Your task to perform on an android device: change alarm snooze length Image 0: 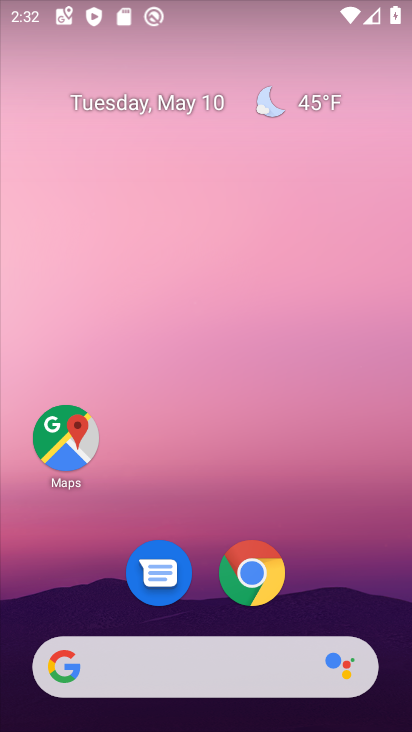
Step 0: drag from (216, 619) to (181, 117)
Your task to perform on an android device: change alarm snooze length Image 1: 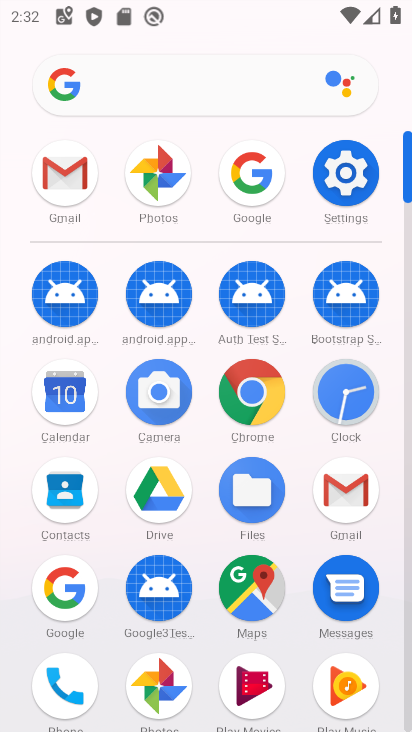
Step 1: click (349, 415)
Your task to perform on an android device: change alarm snooze length Image 2: 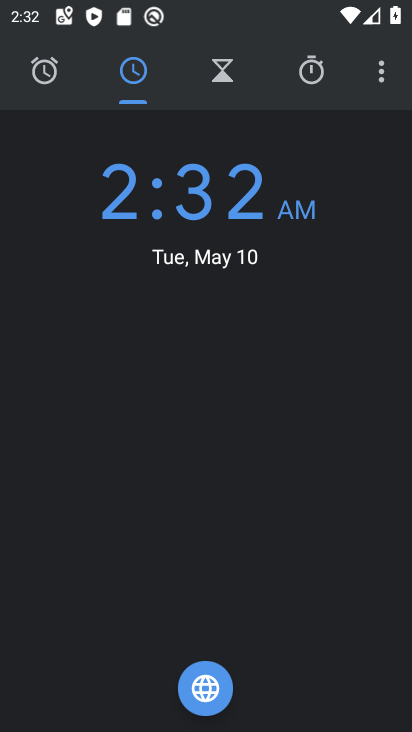
Step 2: click (378, 82)
Your task to perform on an android device: change alarm snooze length Image 3: 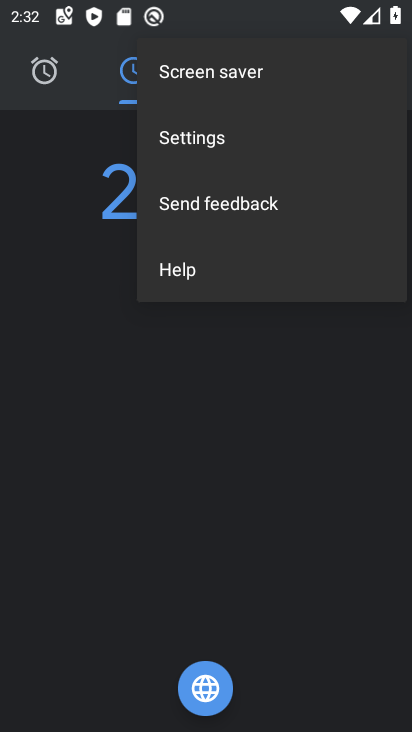
Step 3: click (269, 134)
Your task to perform on an android device: change alarm snooze length Image 4: 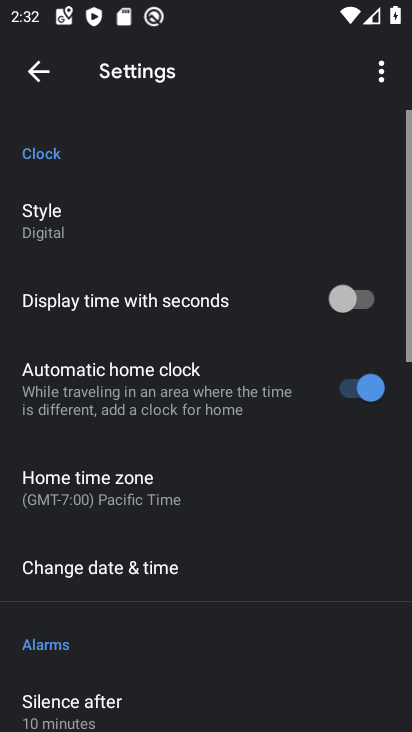
Step 4: drag from (222, 647) to (209, 212)
Your task to perform on an android device: change alarm snooze length Image 5: 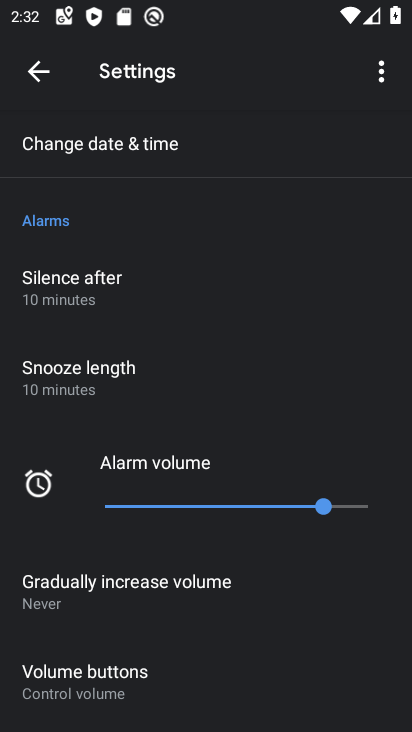
Step 5: drag from (211, 549) to (187, 226)
Your task to perform on an android device: change alarm snooze length Image 6: 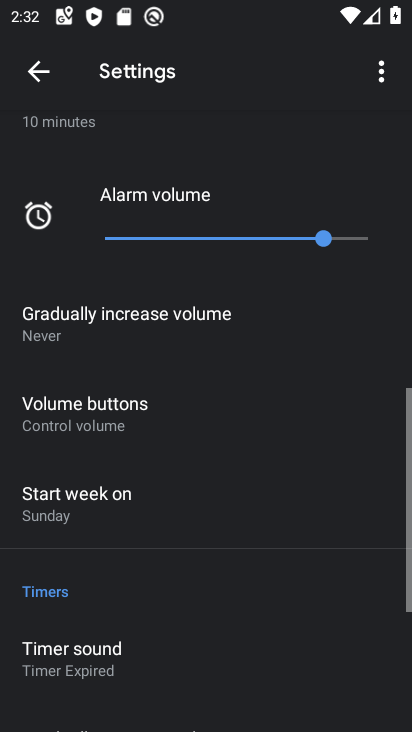
Step 6: drag from (187, 632) to (212, 324)
Your task to perform on an android device: change alarm snooze length Image 7: 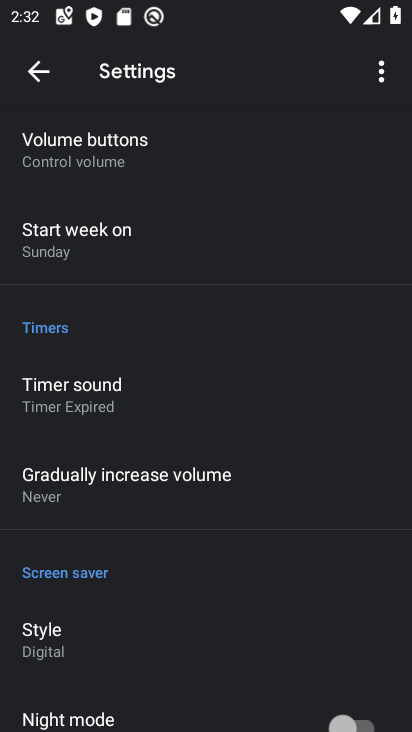
Step 7: drag from (187, 631) to (229, 288)
Your task to perform on an android device: change alarm snooze length Image 8: 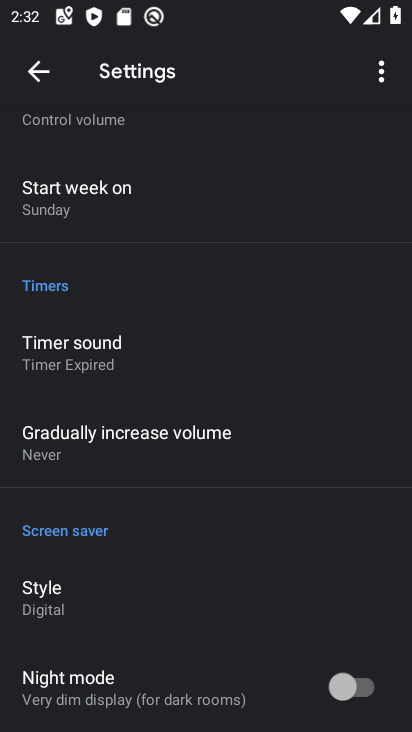
Step 8: drag from (211, 689) to (244, 363)
Your task to perform on an android device: change alarm snooze length Image 9: 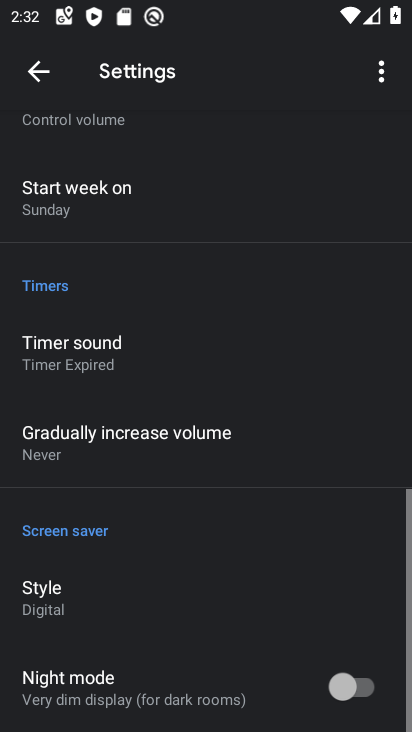
Step 9: drag from (216, 545) to (245, 319)
Your task to perform on an android device: change alarm snooze length Image 10: 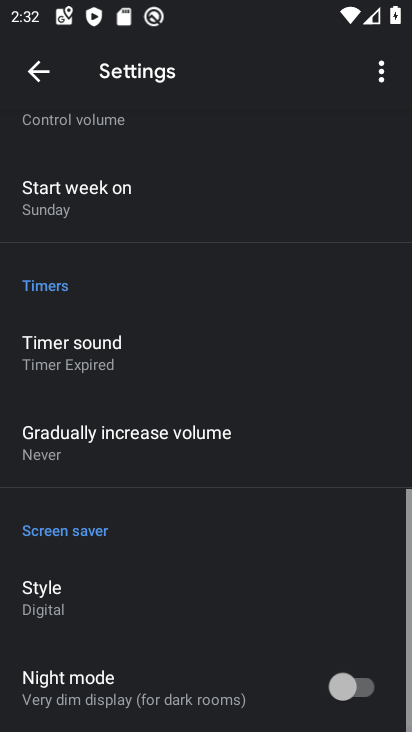
Step 10: drag from (245, 325) to (262, 502)
Your task to perform on an android device: change alarm snooze length Image 11: 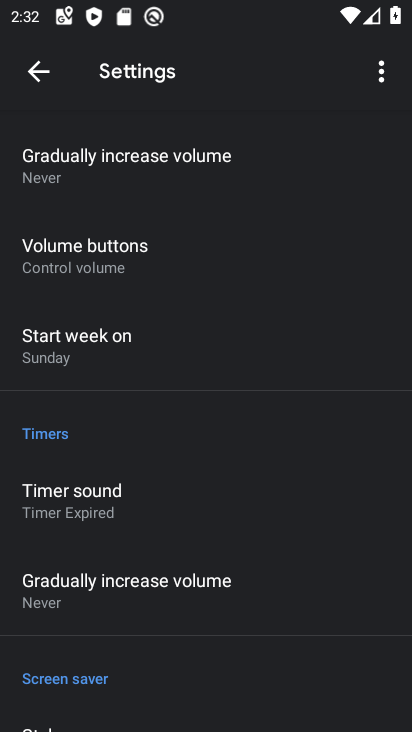
Step 11: drag from (208, 348) to (226, 529)
Your task to perform on an android device: change alarm snooze length Image 12: 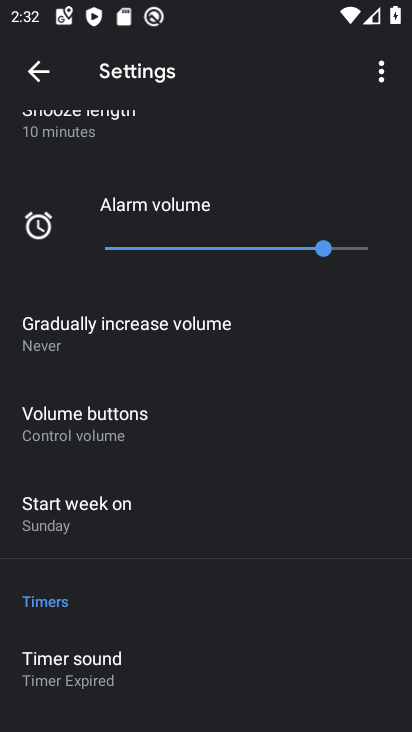
Step 12: drag from (192, 366) to (220, 563)
Your task to perform on an android device: change alarm snooze length Image 13: 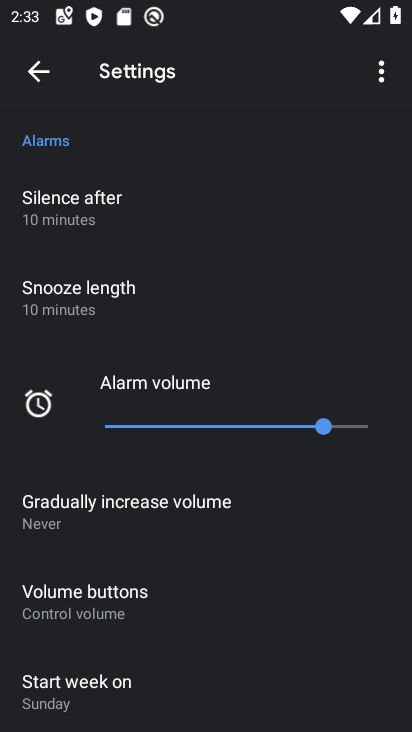
Step 13: click (129, 316)
Your task to perform on an android device: change alarm snooze length Image 14: 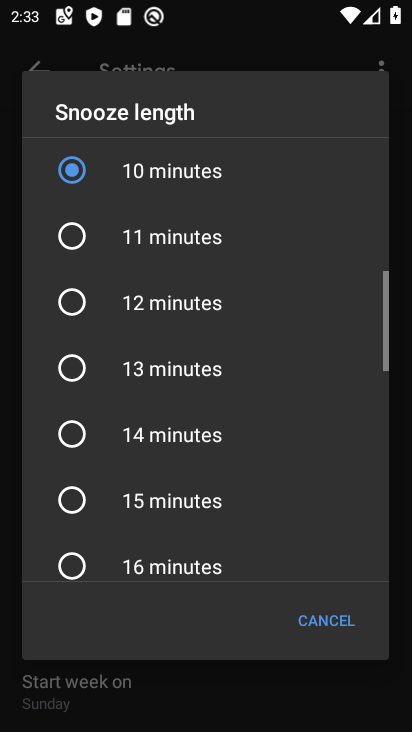
Step 14: click (147, 435)
Your task to perform on an android device: change alarm snooze length Image 15: 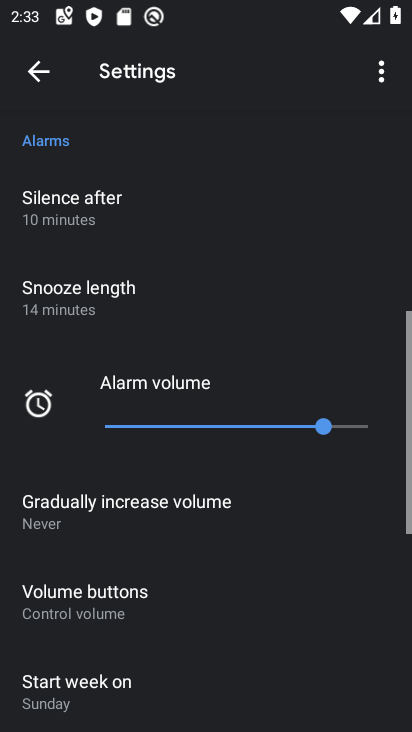
Step 15: task complete